Your task to perform on an android device: turn on notifications settings in the gmail app Image 0: 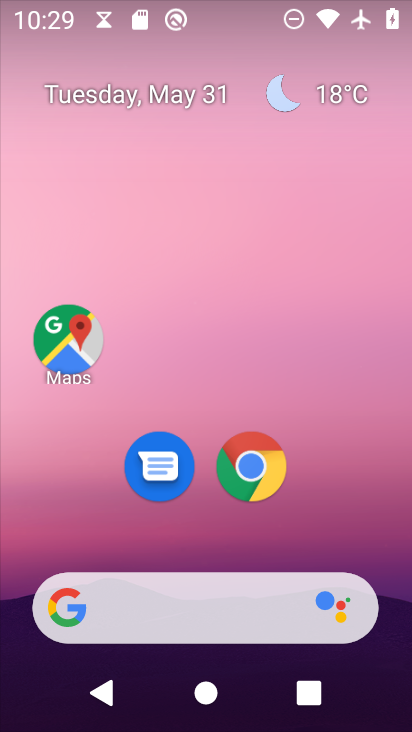
Step 0: drag from (402, 652) to (274, 14)
Your task to perform on an android device: turn on notifications settings in the gmail app Image 1: 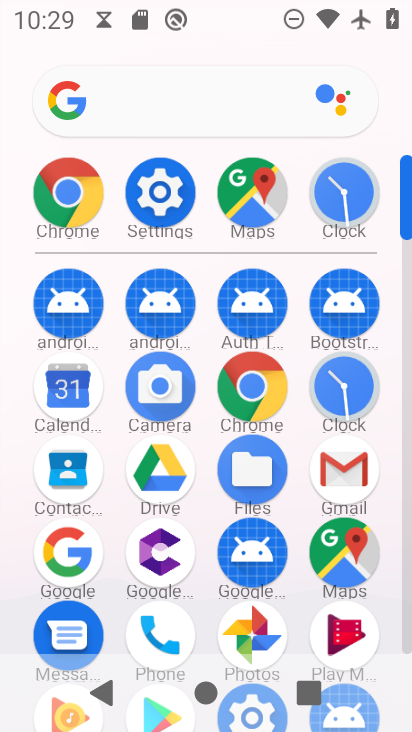
Step 1: drag from (30, 578) to (0, 164)
Your task to perform on an android device: turn on notifications settings in the gmail app Image 2: 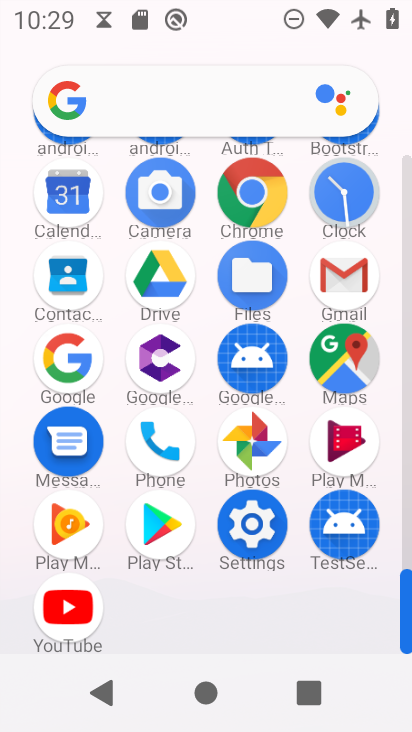
Step 2: click (343, 268)
Your task to perform on an android device: turn on notifications settings in the gmail app Image 3: 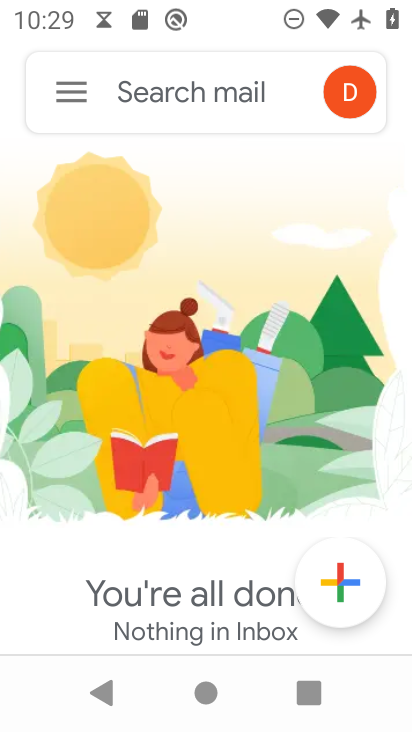
Step 3: click (70, 79)
Your task to perform on an android device: turn on notifications settings in the gmail app Image 4: 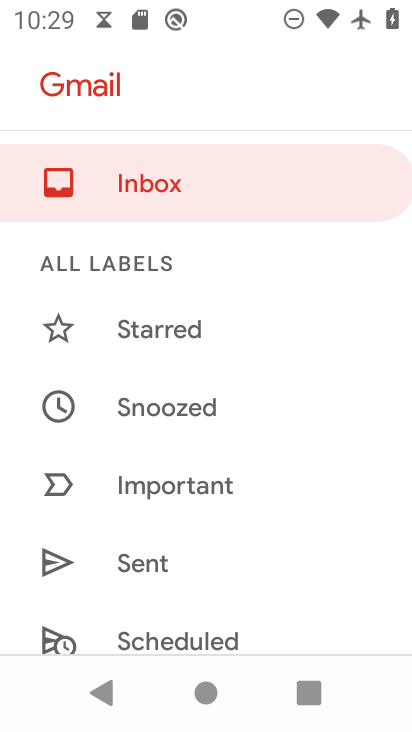
Step 4: drag from (262, 569) to (273, 77)
Your task to perform on an android device: turn on notifications settings in the gmail app Image 5: 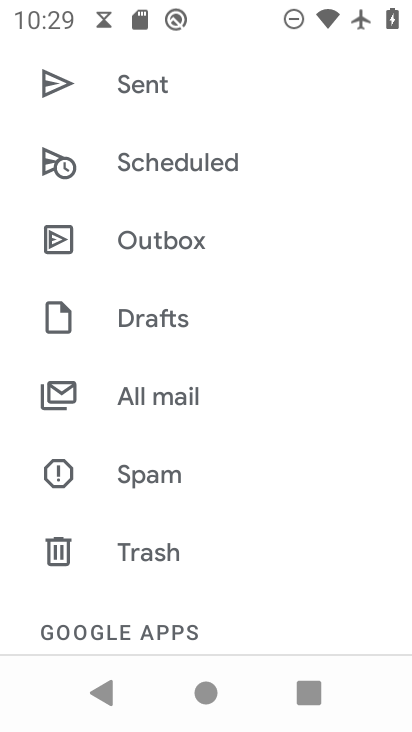
Step 5: drag from (236, 558) to (288, 170)
Your task to perform on an android device: turn on notifications settings in the gmail app Image 6: 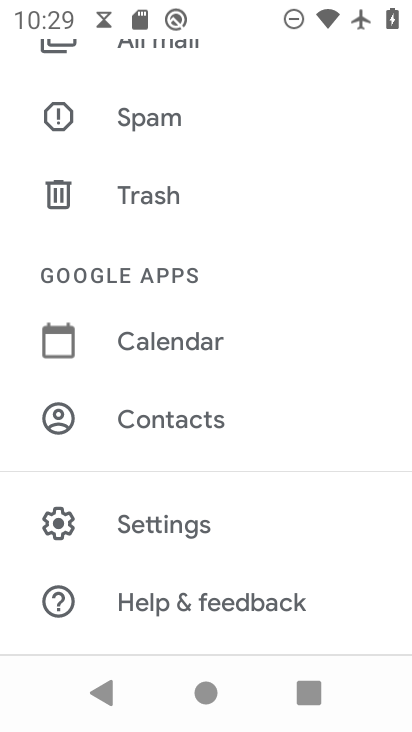
Step 6: click (186, 507)
Your task to perform on an android device: turn on notifications settings in the gmail app Image 7: 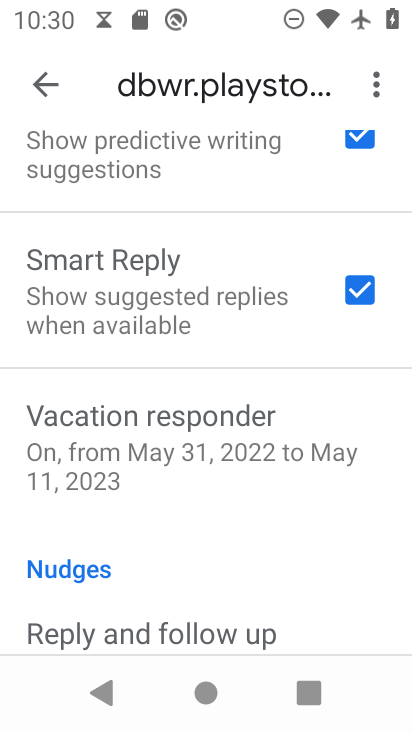
Step 7: drag from (223, 550) to (226, 136)
Your task to perform on an android device: turn on notifications settings in the gmail app Image 8: 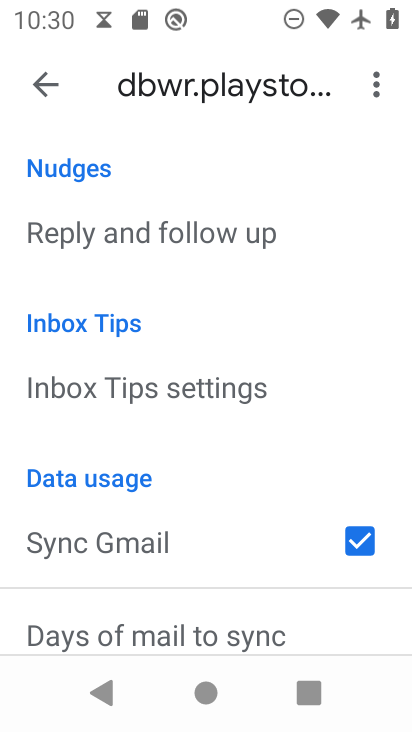
Step 8: drag from (234, 531) to (216, 176)
Your task to perform on an android device: turn on notifications settings in the gmail app Image 9: 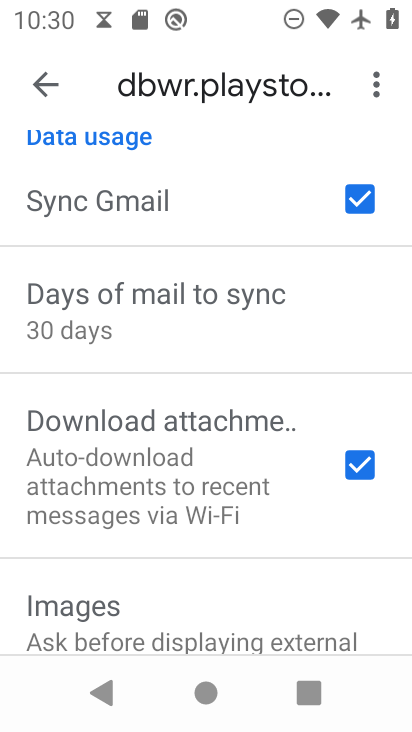
Step 9: drag from (206, 556) to (214, 176)
Your task to perform on an android device: turn on notifications settings in the gmail app Image 10: 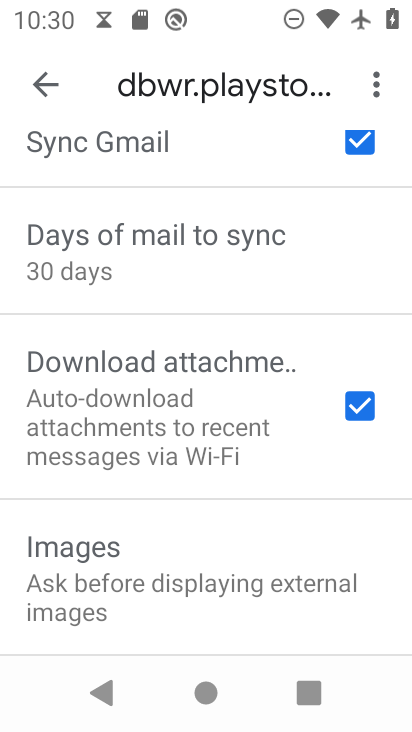
Step 10: drag from (205, 525) to (176, 143)
Your task to perform on an android device: turn on notifications settings in the gmail app Image 11: 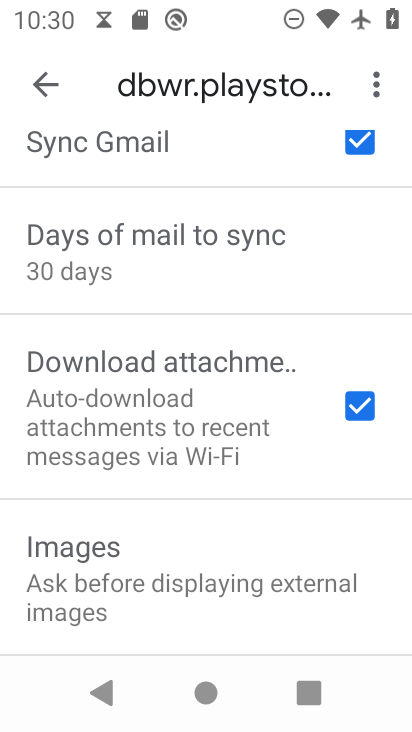
Step 11: drag from (181, 502) to (226, 96)
Your task to perform on an android device: turn on notifications settings in the gmail app Image 12: 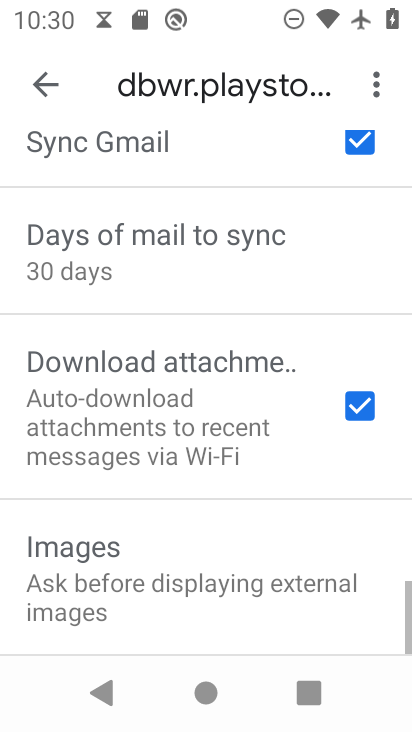
Step 12: drag from (211, 567) to (226, 194)
Your task to perform on an android device: turn on notifications settings in the gmail app Image 13: 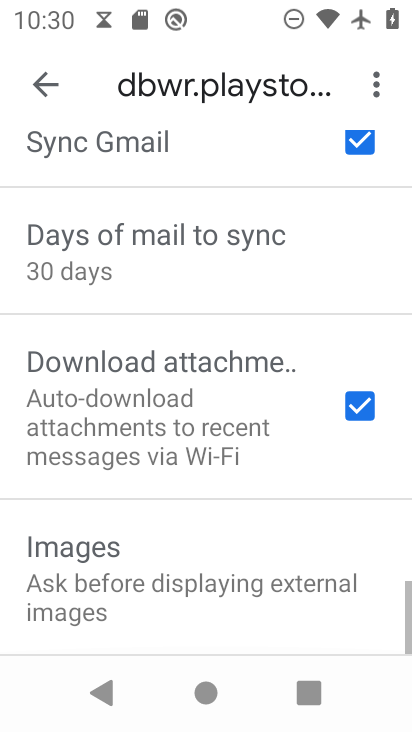
Step 13: drag from (225, 203) to (215, 553)
Your task to perform on an android device: turn on notifications settings in the gmail app Image 14: 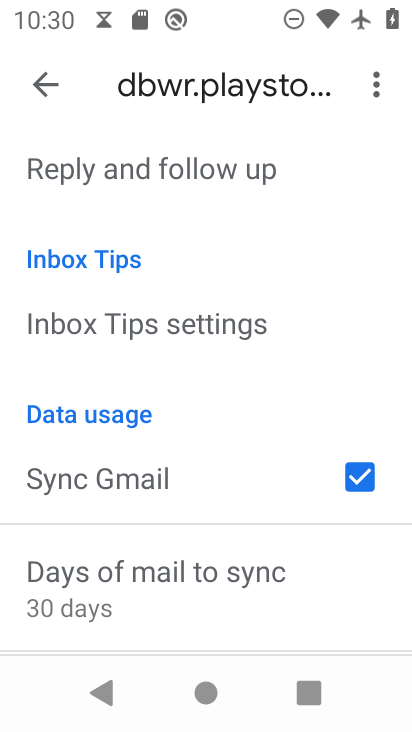
Step 14: drag from (207, 214) to (197, 593)
Your task to perform on an android device: turn on notifications settings in the gmail app Image 15: 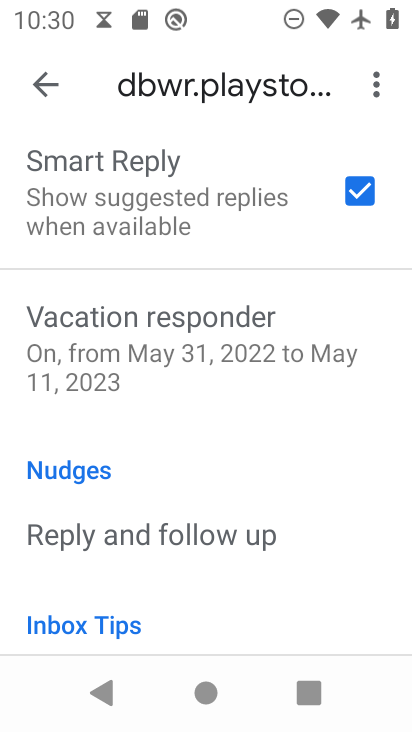
Step 15: drag from (240, 211) to (228, 489)
Your task to perform on an android device: turn on notifications settings in the gmail app Image 16: 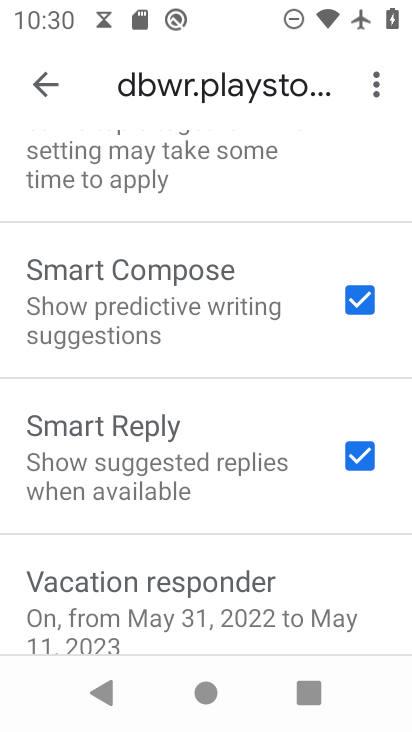
Step 16: drag from (197, 213) to (192, 547)
Your task to perform on an android device: turn on notifications settings in the gmail app Image 17: 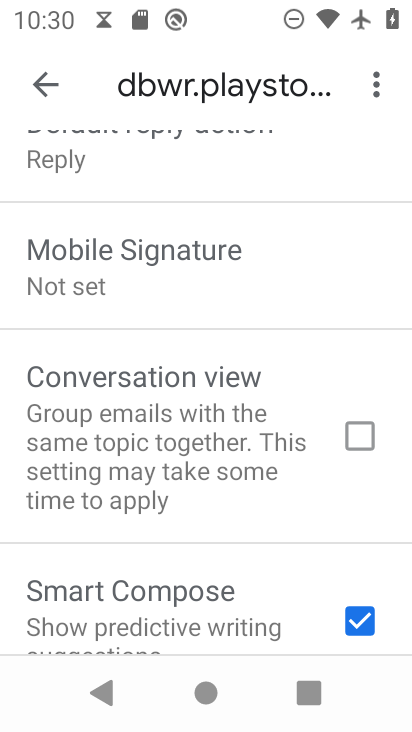
Step 17: drag from (151, 130) to (135, 552)
Your task to perform on an android device: turn on notifications settings in the gmail app Image 18: 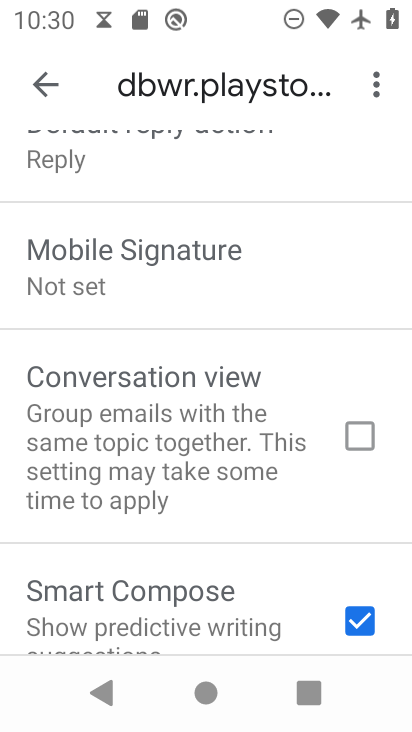
Step 18: drag from (278, 245) to (216, 537)
Your task to perform on an android device: turn on notifications settings in the gmail app Image 19: 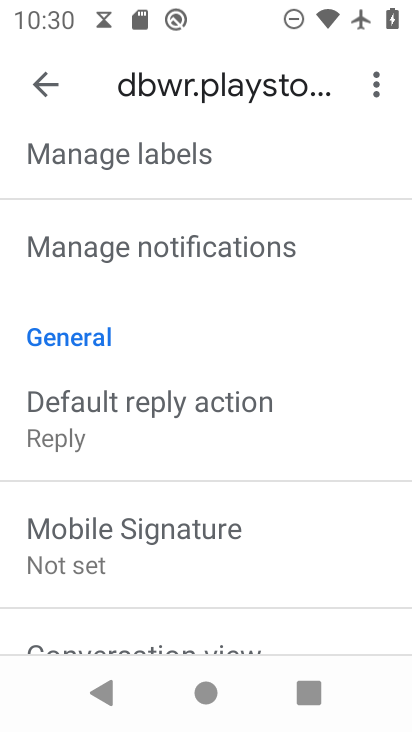
Step 19: drag from (234, 211) to (191, 524)
Your task to perform on an android device: turn on notifications settings in the gmail app Image 20: 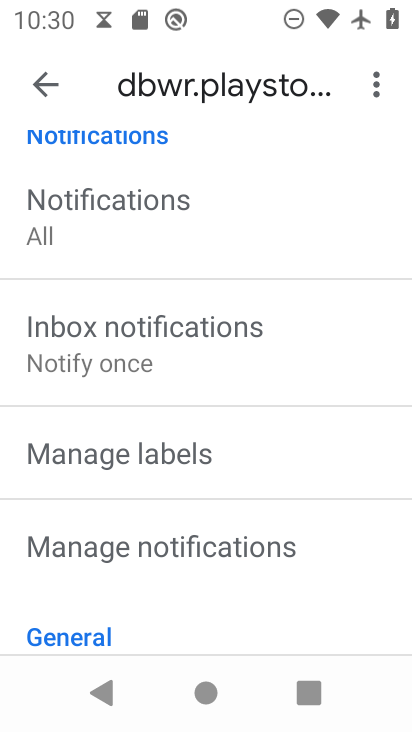
Step 20: drag from (232, 196) to (232, 572)
Your task to perform on an android device: turn on notifications settings in the gmail app Image 21: 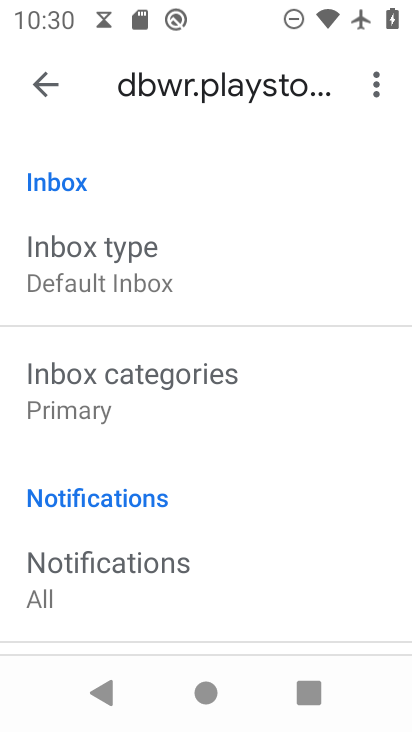
Step 21: drag from (258, 190) to (257, 627)
Your task to perform on an android device: turn on notifications settings in the gmail app Image 22: 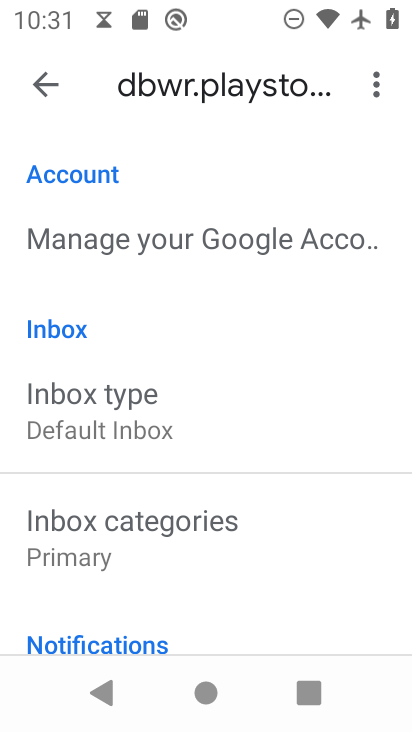
Step 22: drag from (185, 555) to (237, 145)
Your task to perform on an android device: turn on notifications settings in the gmail app Image 23: 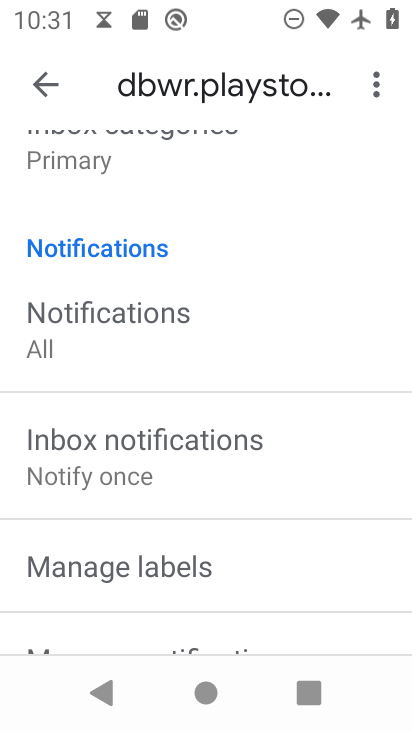
Step 23: drag from (160, 506) to (207, 166)
Your task to perform on an android device: turn on notifications settings in the gmail app Image 24: 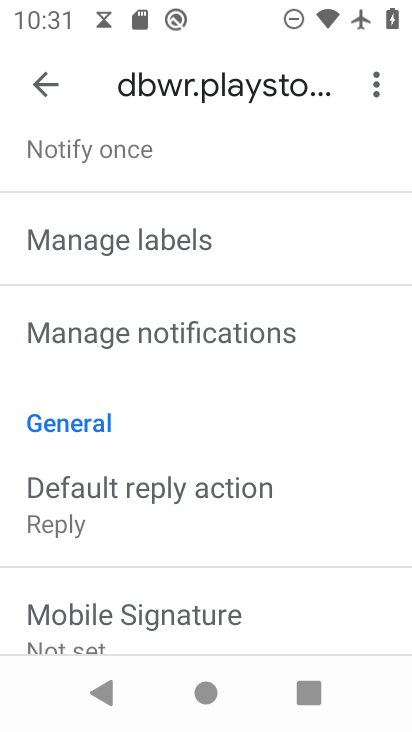
Step 24: click (170, 305)
Your task to perform on an android device: turn on notifications settings in the gmail app Image 25: 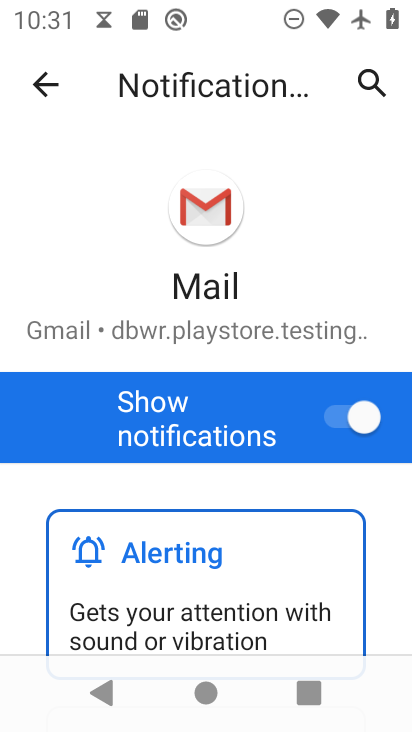
Step 25: task complete